Your task to perform on an android device: open app "DoorDash - Food Delivery" Image 0: 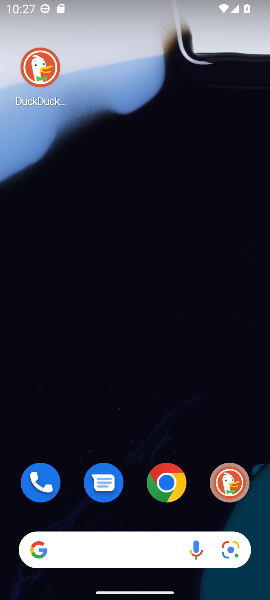
Step 0: drag from (155, 513) to (166, 158)
Your task to perform on an android device: open app "DoorDash - Food Delivery" Image 1: 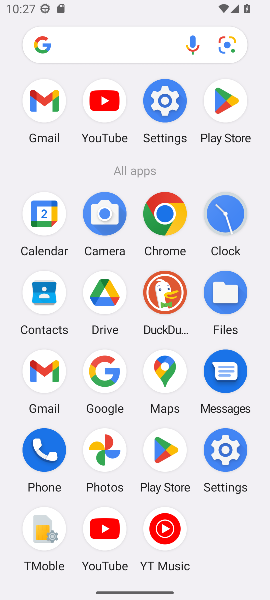
Step 1: click (238, 128)
Your task to perform on an android device: open app "DoorDash - Food Delivery" Image 2: 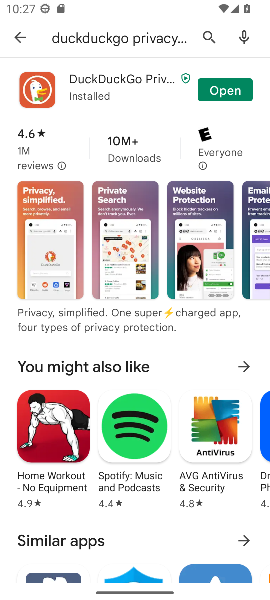
Step 2: click (21, 39)
Your task to perform on an android device: open app "DoorDash - Food Delivery" Image 3: 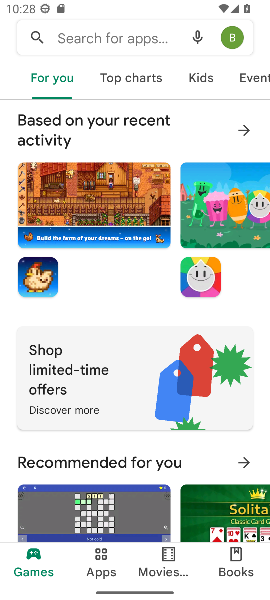
Step 3: click (71, 52)
Your task to perform on an android device: open app "DoorDash - Food Delivery" Image 4: 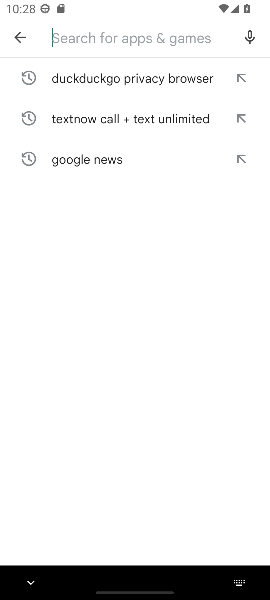
Step 4: type ""
Your task to perform on an android device: open app "DoorDash - Food Delivery" Image 5: 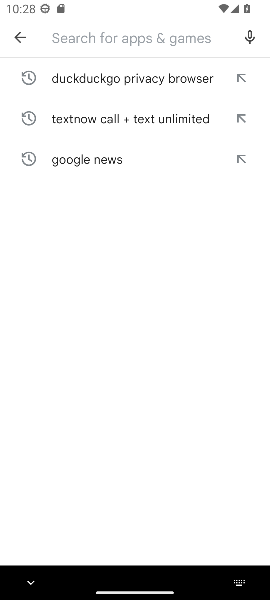
Step 5: type "DoorDash - Food Delivery"
Your task to perform on an android device: open app "DoorDash - Food Delivery" Image 6: 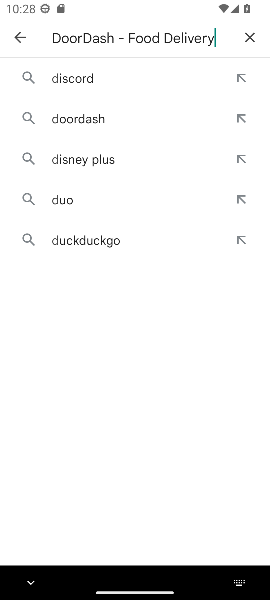
Step 6: type ""
Your task to perform on an android device: open app "DoorDash - Food Delivery" Image 7: 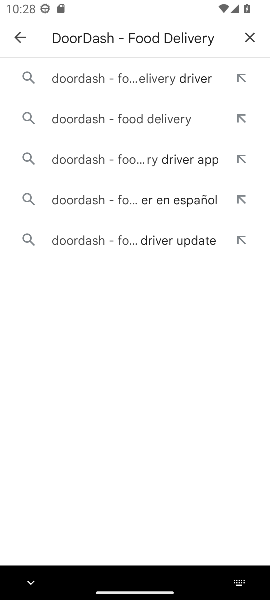
Step 7: click (138, 73)
Your task to perform on an android device: open app "DoorDash - Food Delivery" Image 8: 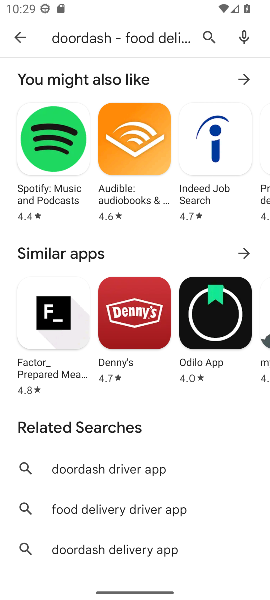
Step 8: task complete